Your task to perform on an android device: Open Google Chrome and click the shortcut for Amazon.com Image 0: 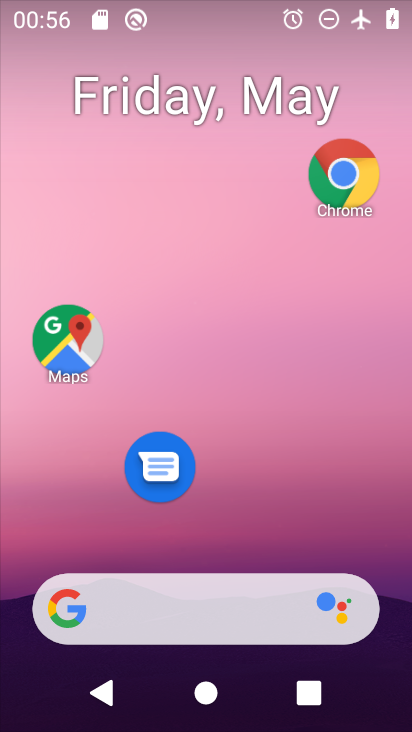
Step 0: click (335, 168)
Your task to perform on an android device: Open Google Chrome and click the shortcut for Amazon.com Image 1: 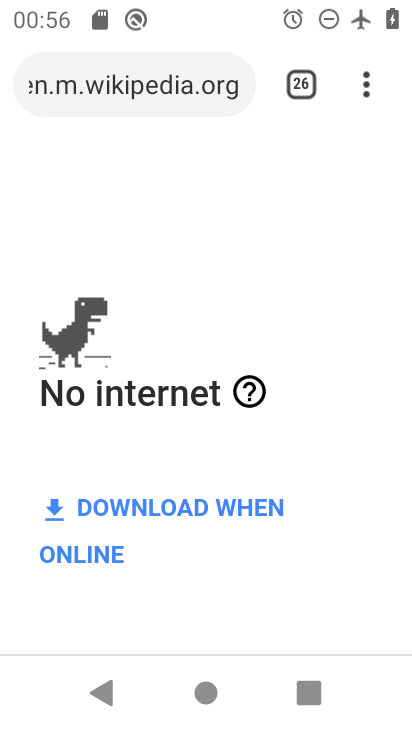
Step 1: click (356, 72)
Your task to perform on an android device: Open Google Chrome and click the shortcut for Amazon.com Image 2: 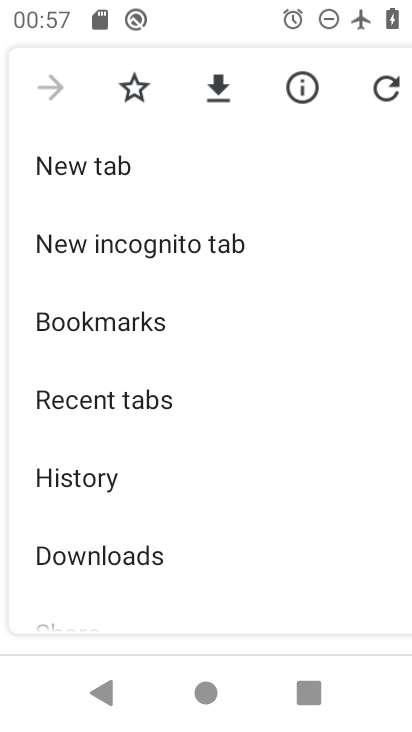
Step 2: click (116, 167)
Your task to perform on an android device: Open Google Chrome and click the shortcut for Amazon.com Image 3: 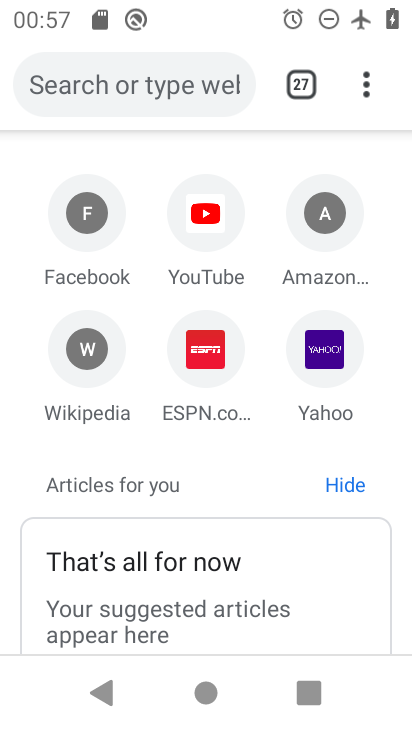
Step 3: click (324, 207)
Your task to perform on an android device: Open Google Chrome and click the shortcut for Amazon.com Image 4: 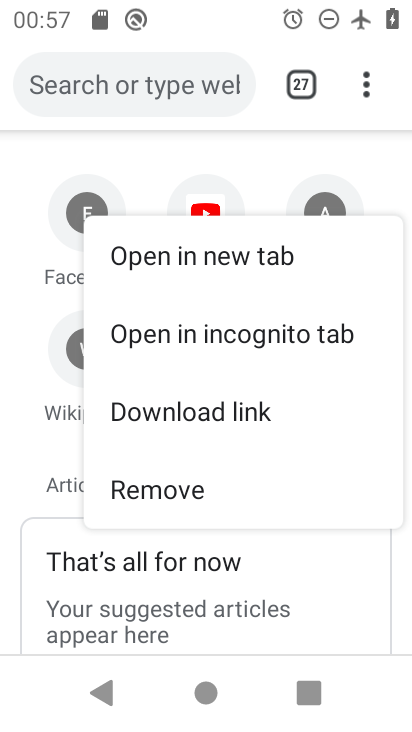
Step 4: click (332, 204)
Your task to perform on an android device: Open Google Chrome and click the shortcut for Amazon.com Image 5: 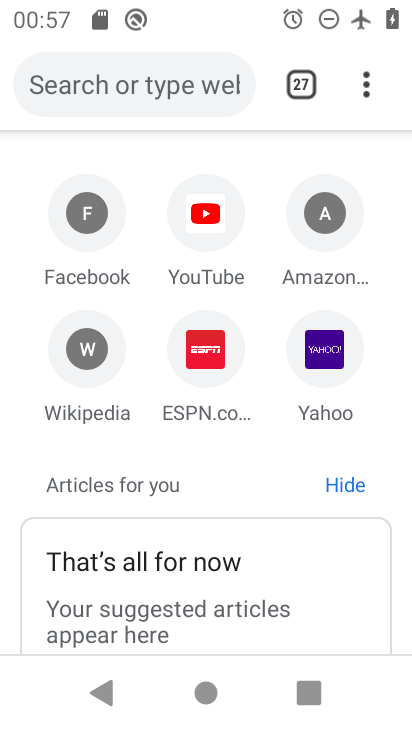
Step 5: click (329, 204)
Your task to perform on an android device: Open Google Chrome and click the shortcut for Amazon.com Image 6: 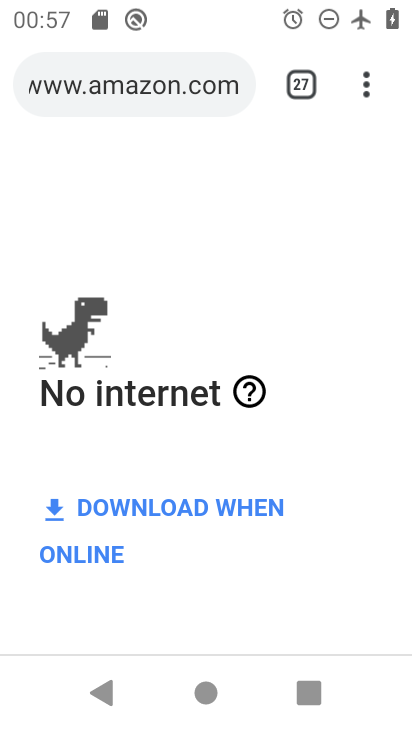
Step 6: task complete